Your task to perform on an android device: Open the phone app and click the voicemail tab. Image 0: 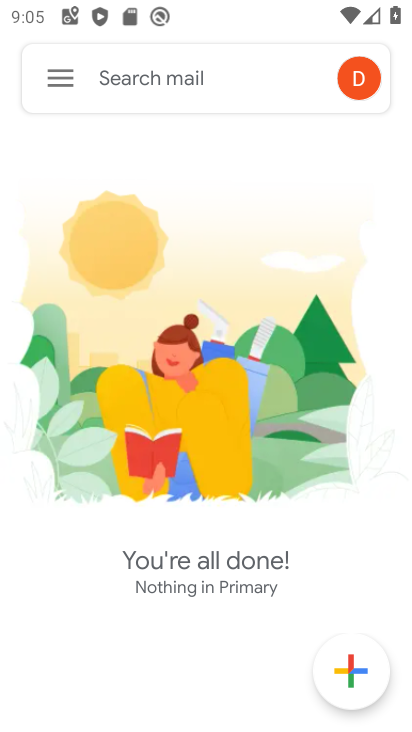
Step 0: press home button
Your task to perform on an android device: Open the phone app and click the voicemail tab. Image 1: 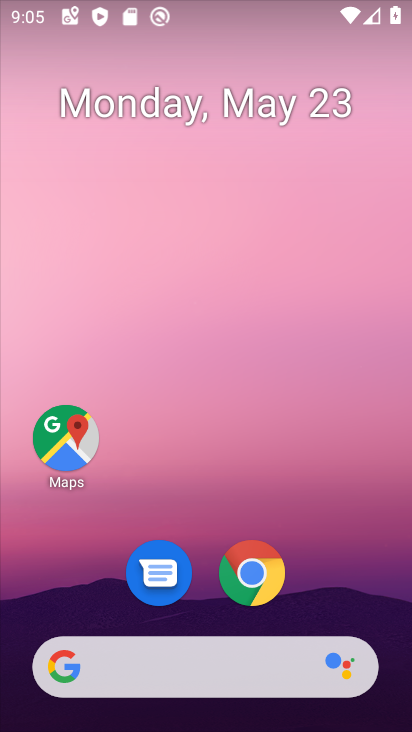
Step 1: drag from (386, 601) to (392, 275)
Your task to perform on an android device: Open the phone app and click the voicemail tab. Image 2: 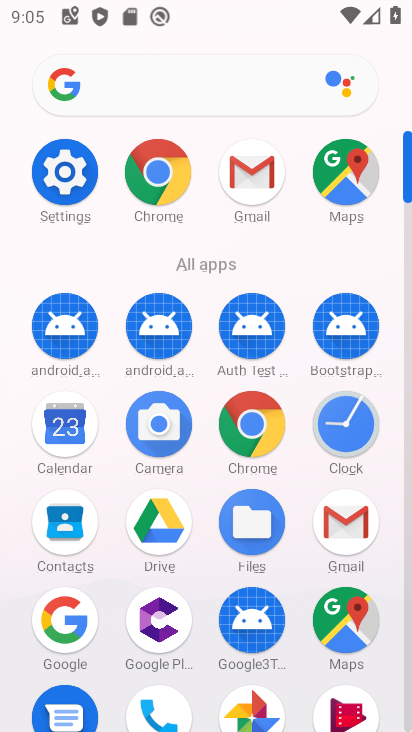
Step 2: drag from (389, 603) to (387, 439)
Your task to perform on an android device: Open the phone app and click the voicemail tab. Image 3: 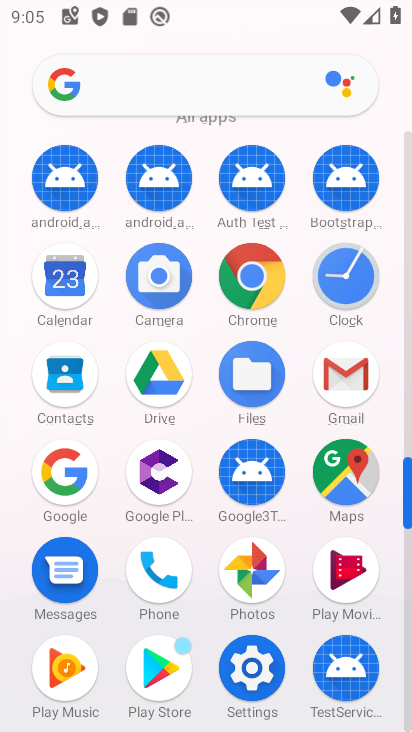
Step 3: drag from (383, 571) to (388, 406)
Your task to perform on an android device: Open the phone app and click the voicemail tab. Image 4: 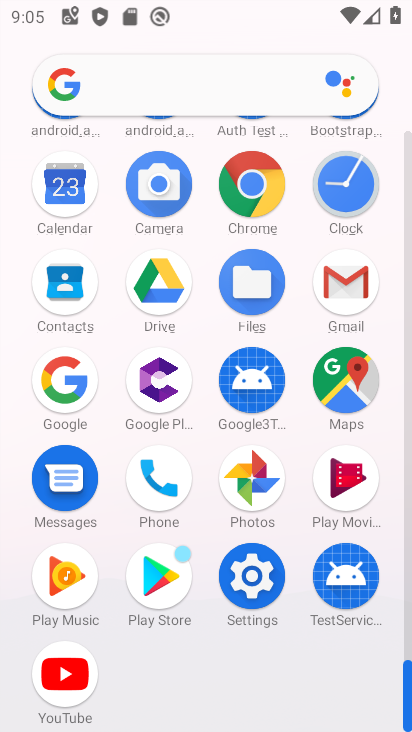
Step 4: click (168, 470)
Your task to perform on an android device: Open the phone app and click the voicemail tab. Image 5: 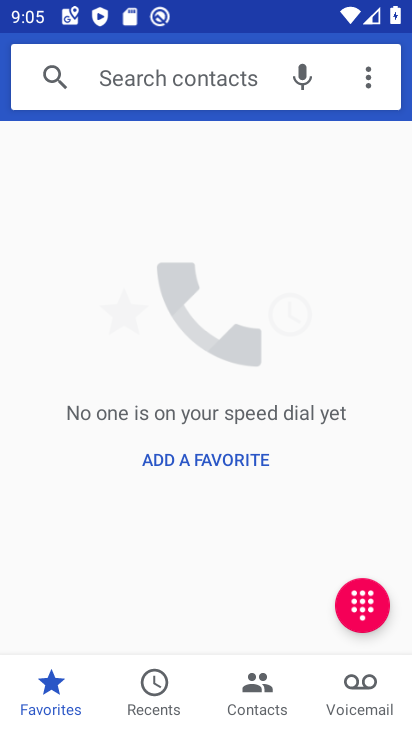
Step 5: click (357, 708)
Your task to perform on an android device: Open the phone app and click the voicemail tab. Image 6: 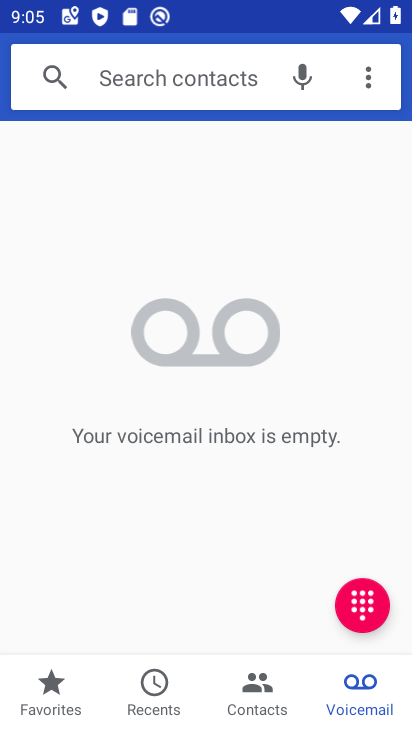
Step 6: task complete